Your task to perform on an android device: Show me productivity apps on the Play Store Image 0: 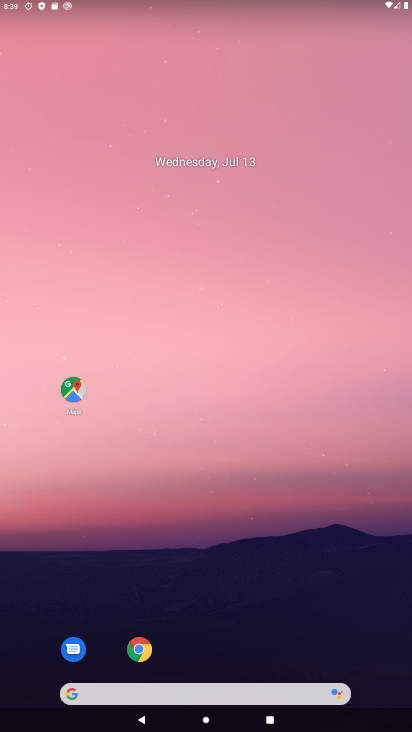
Step 0: drag from (313, 659) to (370, 49)
Your task to perform on an android device: Show me productivity apps on the Play Store Image 1: 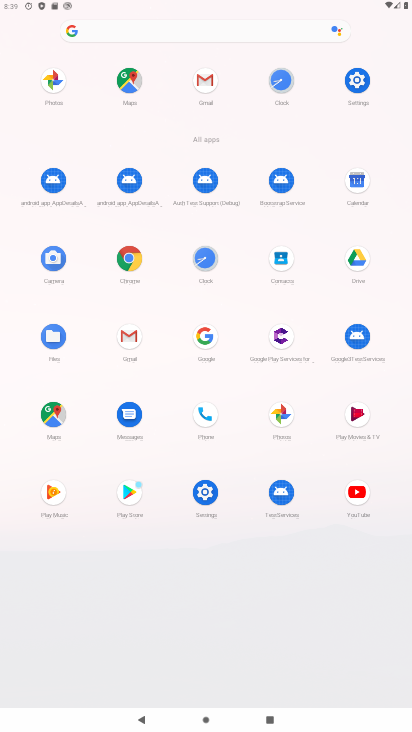
Step 1: click (137, 490)
Your task to perform on an android device: Show me productivity apps on the Play Store Image 2: 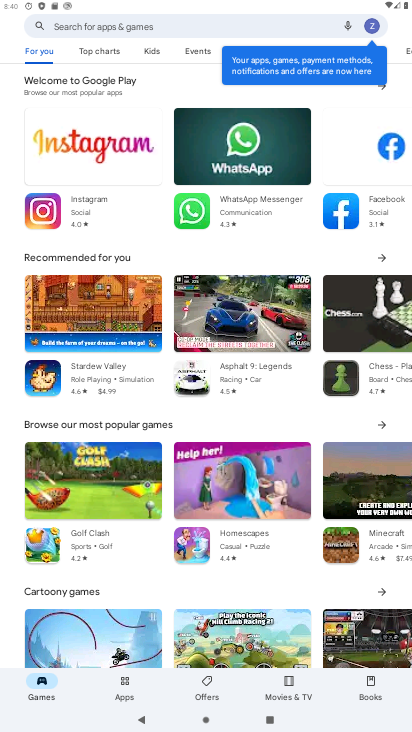
Step 2: click (120, 677)
Your task to perform on an android device: Show me productivity apps on the Play Store Image 3: 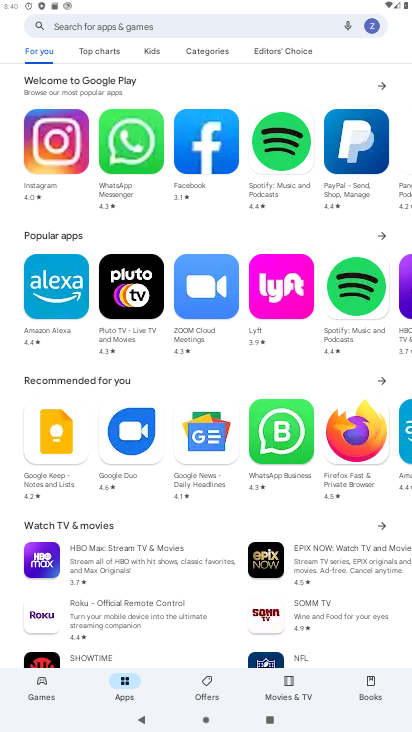
Step 3: drag from (344, 595) to (328, 58)
Your task to perform on an android device: Show me productivity apps on the Play Store Image 4: 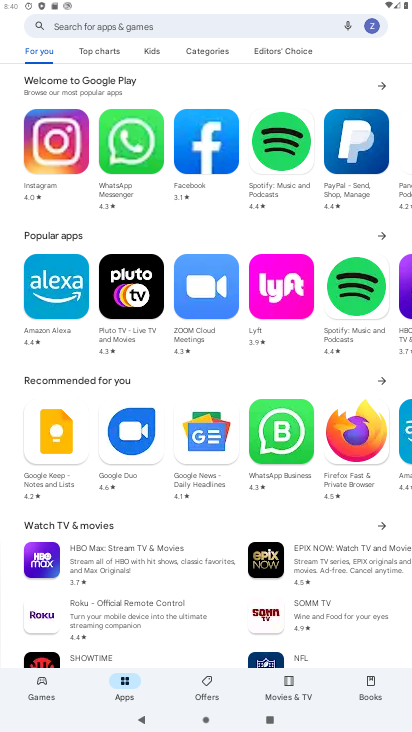
Step 4: drag from (253, 514) to (268, 70)
Your task to perform on an android device: Show me productivity apps on the Play Store Image 5: 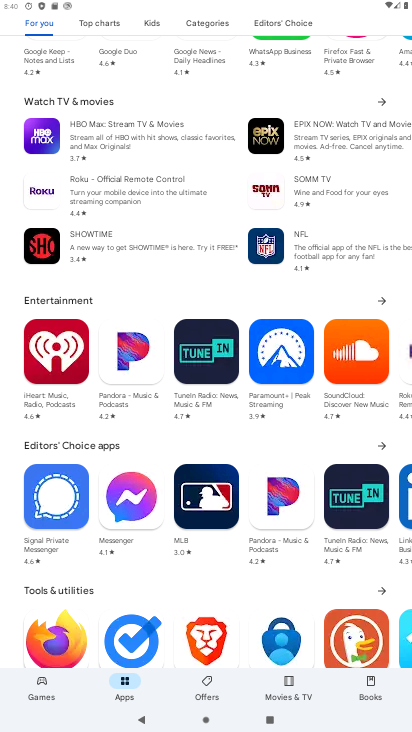
Step 5: drag from (248, 604) to (274, 184)
Your task to perform on an android device: Show me productivity apps on the Play Store Image 6: 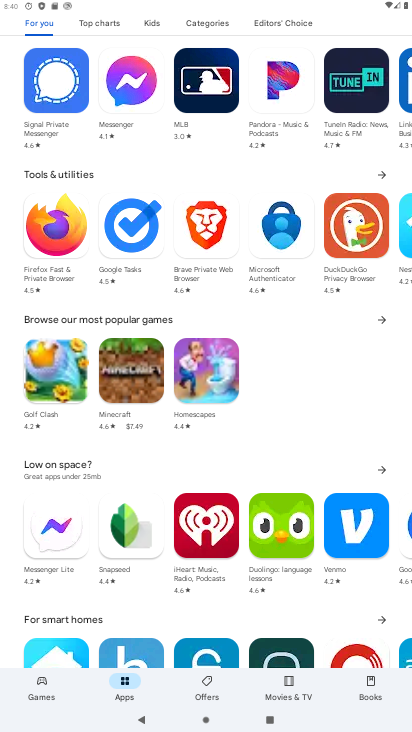
Step 6: drag from (282, 445) to (274, 118)
Your task to perform on an android device: Show me productivity apps on the Play Store Image 7: 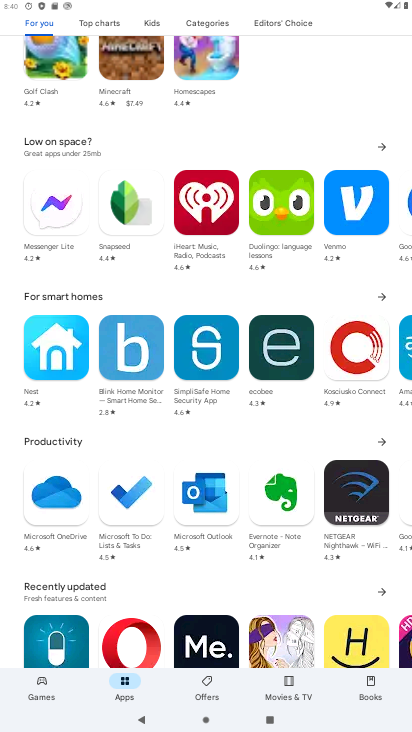
Step 7: click (381, 442)
Your task to perform on an android device: Show me productivity apps on the Play Store Image 8: 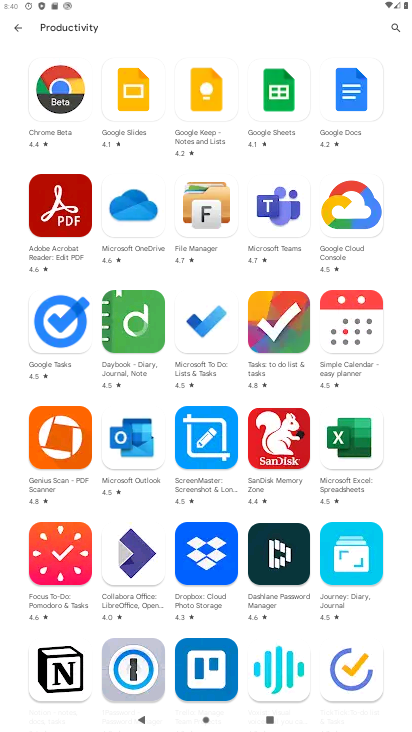
Step 8: task complete